Your task to perform on an android device: add a contact Image 0: 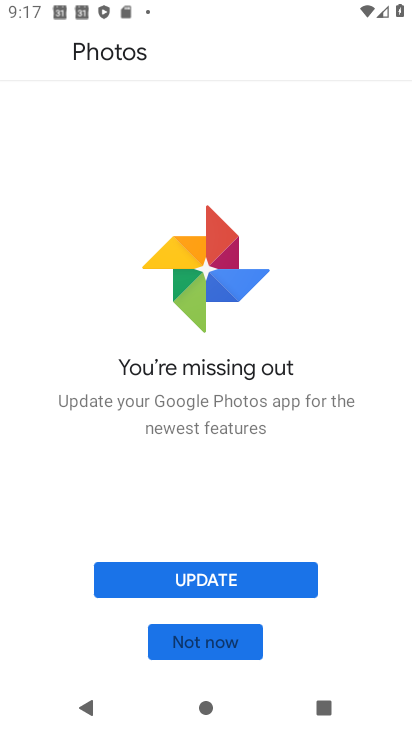
Step 0: press home button
Your task to perform on an android device: add a contact Image 1: 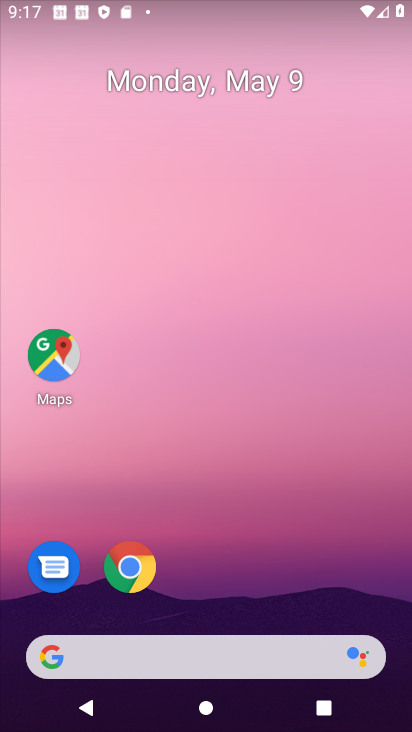
Step 1: drag from (218, 670) to (168, 43)
Your task to perform on an android device: add a contact Image 2: 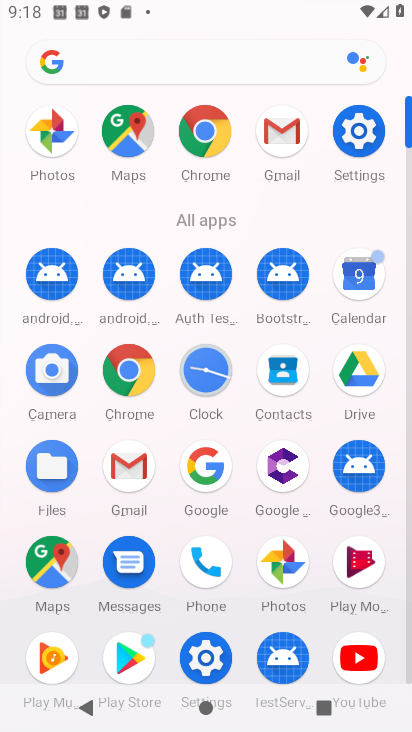
Step 2: click (288, 366)
Your task to perform on an android device: add a contact Image 3: 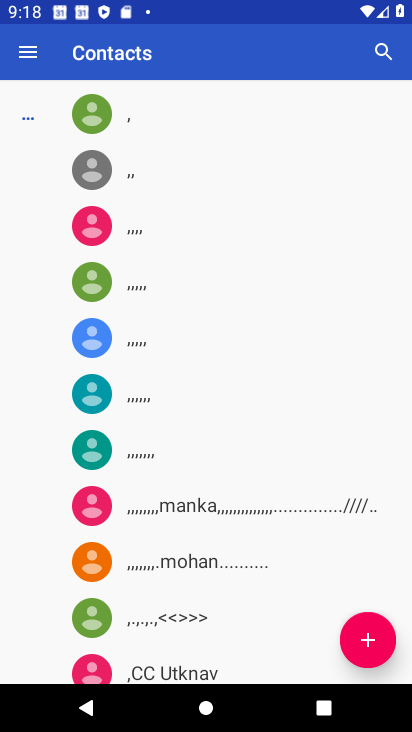
Step 3: click (374, 647)
Your task to perform on an android device: add a contact Image 4: 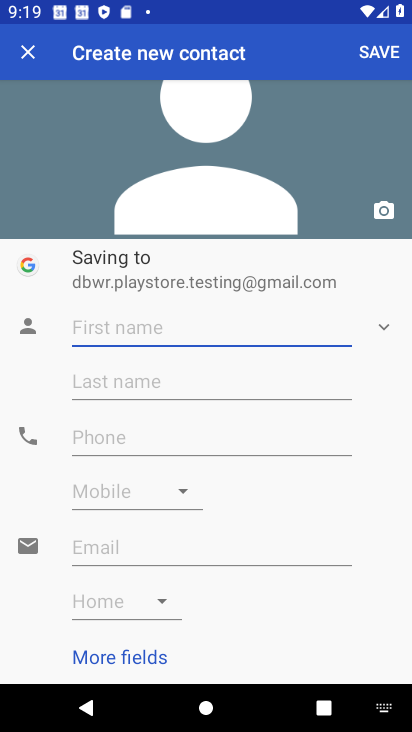
Step 4: type "hskjhdsj"
Your task to perform on an android device: add a contact Image 5: 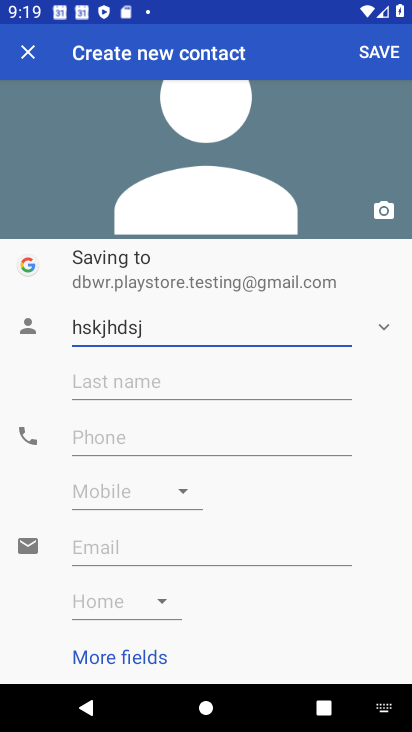
Step 5: click (125, 437)
Your task to perform on an android device: add a contact Image 6: 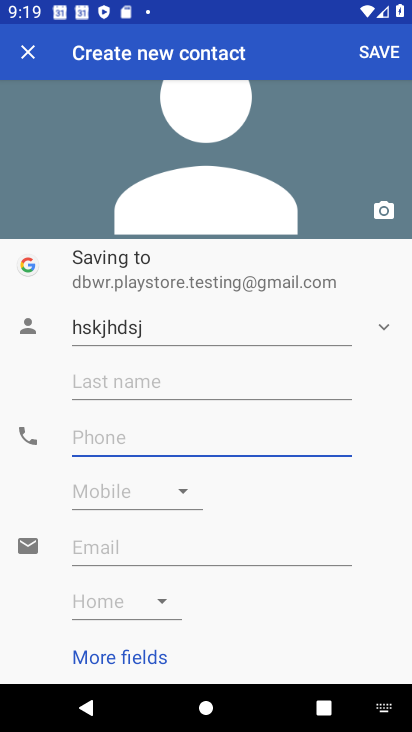
Step 6: type "734895793"
Your task to perform on an android device: add a contact Image 7: 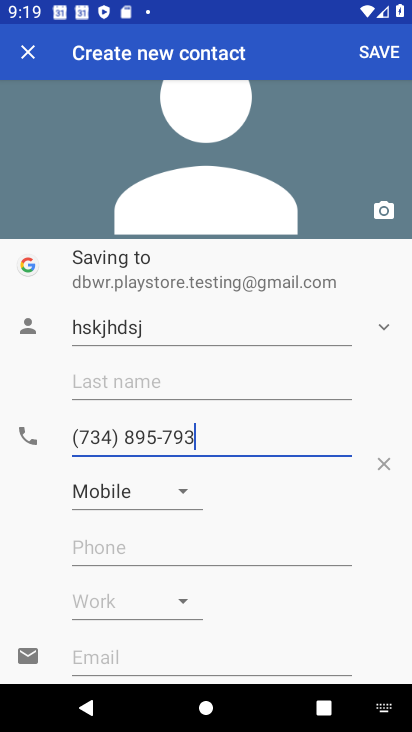
Step 7: click (373, 50)
Your task to perform on an android device: add a contact Image 8: 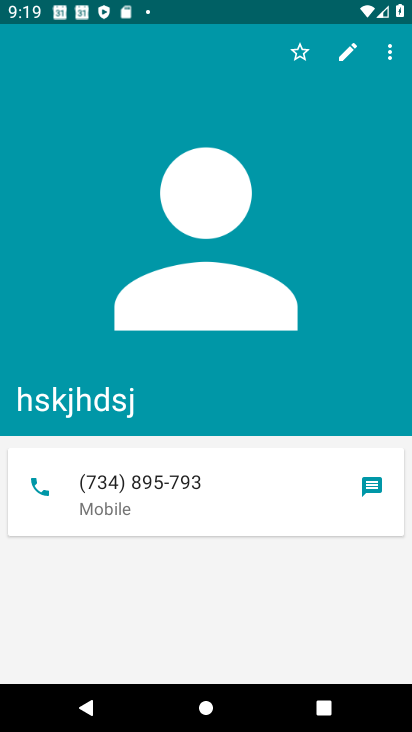
Step 8: task complete